Your task to perform on an android device: Open ESPN.com Image 0: 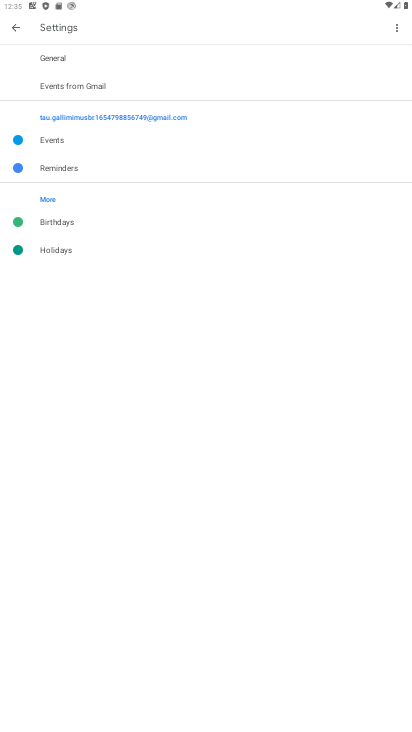
Step 0: press home button
Your task to perform on an android device: Open ESPN.com Image 1: 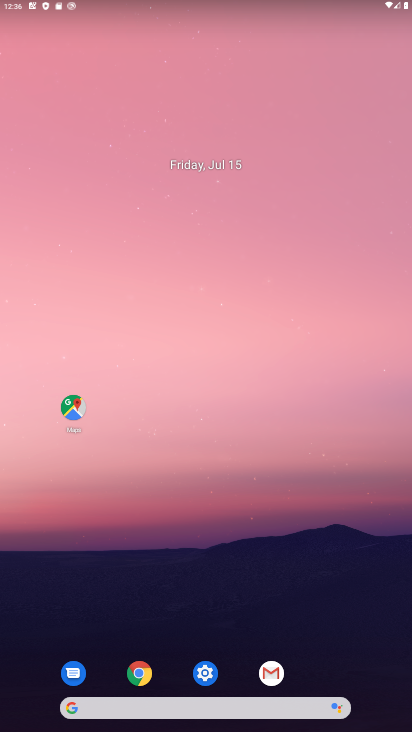
Step 1: click (146, 668)
Your task to perform on an android device: Open ESPN.com Image 2: 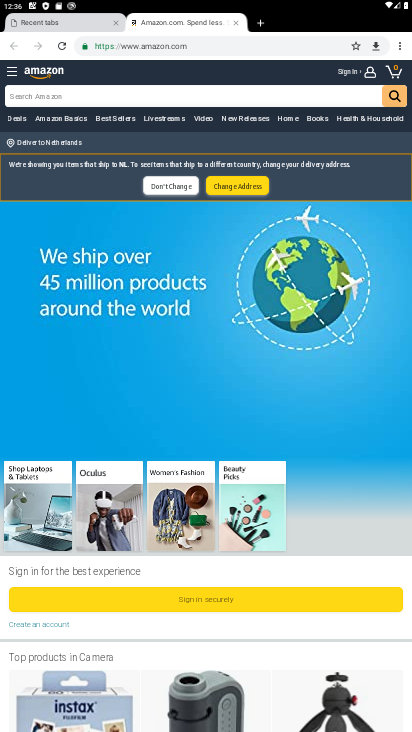
Step 2: click (264, 18)
Your task to perform on an android device: Open ESPN.com Image 3: 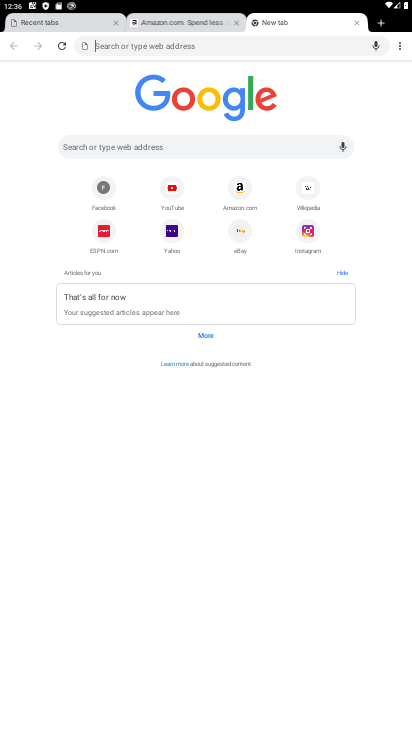
Step 3: click (104, 234)
Your task to perform on an android device: Open ESPN.com Image 4: 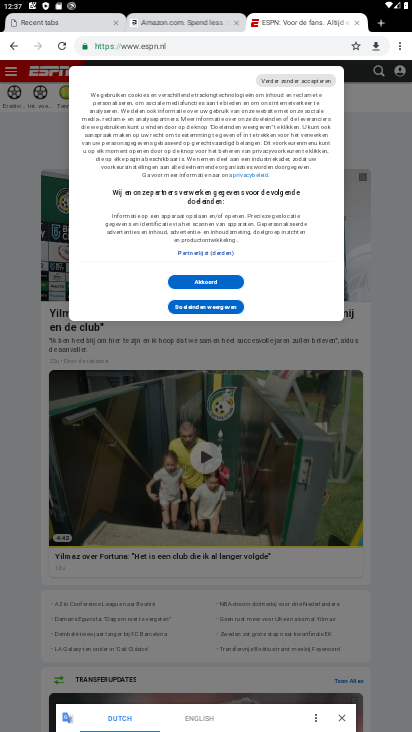
Step 4: click (202, 284)
Your task to perform on an android device: Open ESPN.com Image 5: 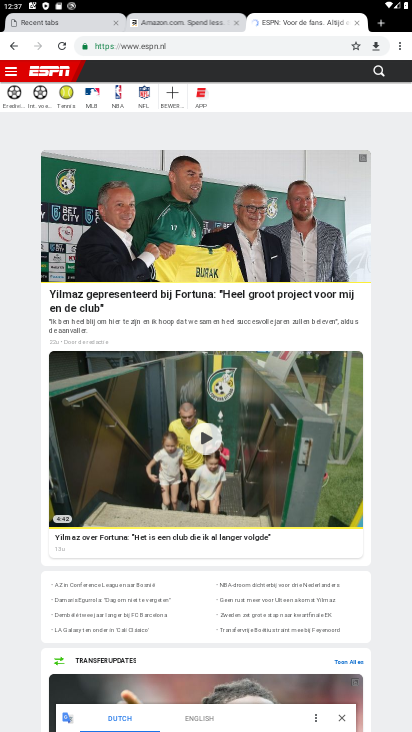
Step 5: task complete